Your task to perform on an android device: Open the phone app and click the voicemail tab. Image 0: 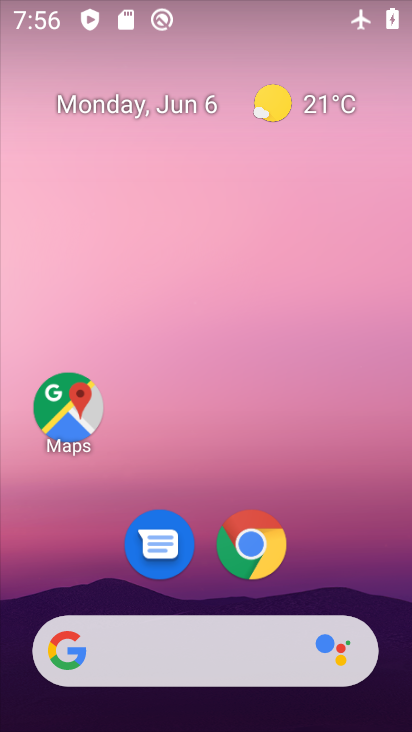
Step 0: drag from (308, 600) to (328, 343)
Your task to perform on an android device: Open the phone app and click the voicemail tab. Image 1: 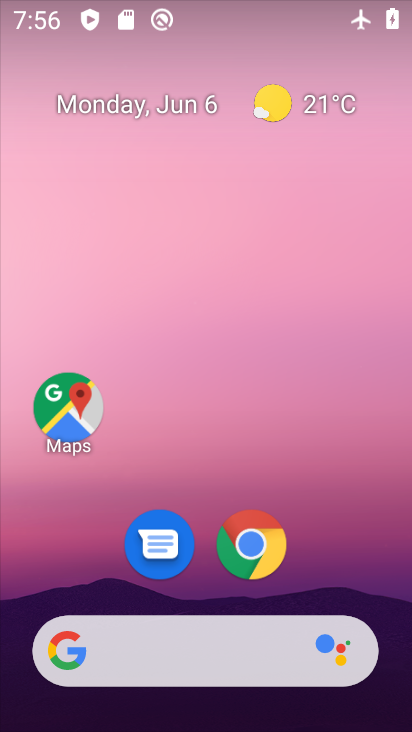
Step 1: drag from (240, 574) to (256, 287)
Your task to perform on an android device: Open the phone app and click the voicemail tab. Image 2: 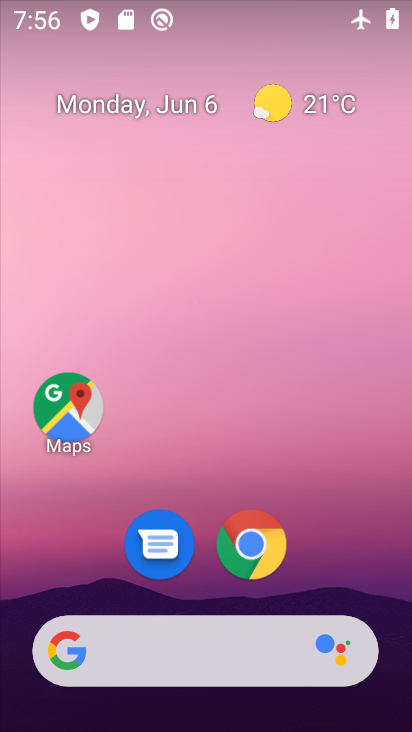
Step 2: drag from (167, 606) to (213, 234)
Your task to perform on an android device: Open the phone app and click the voicemail tab. Image 3: 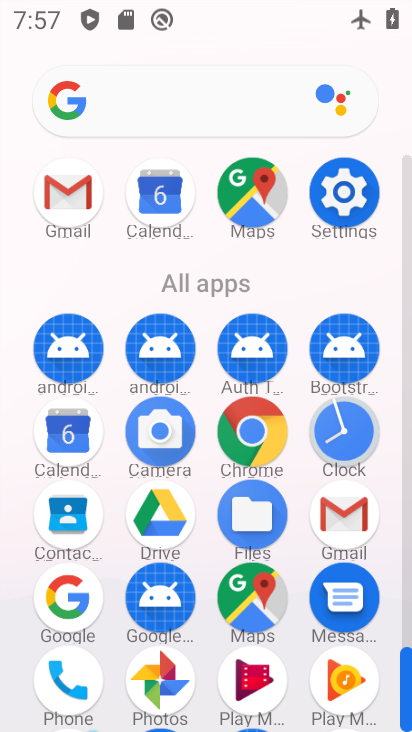
Step 3: click (77, 689)
Your task to perform on an android device: Open the phone app and click the voicemail tab. Image 4: 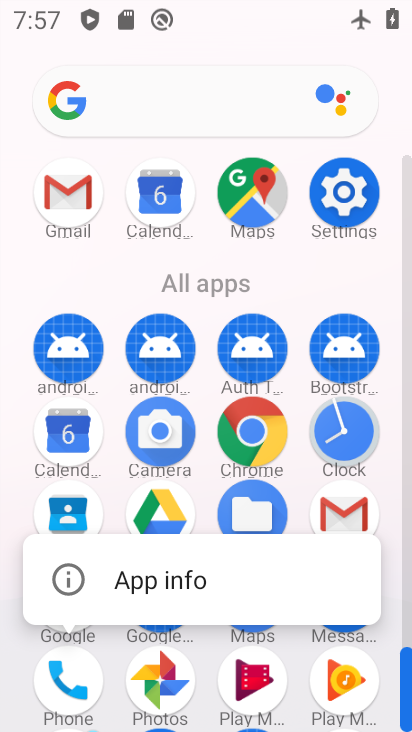
Step 4: click (58, 687)
Your task to perform on an android device: Open the phone app and click the voicemail tab. Image 5: 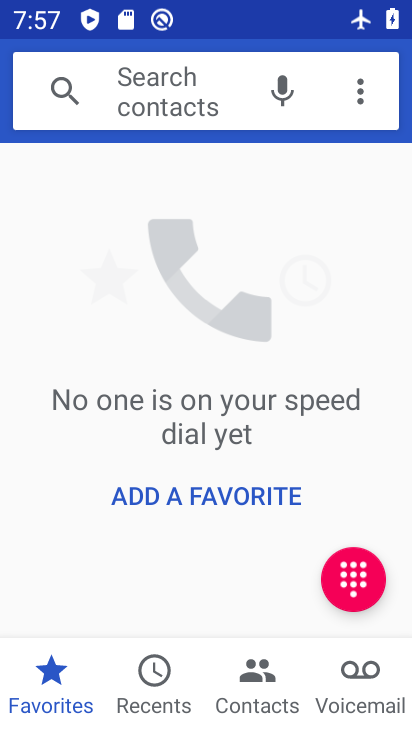
Step 5: click (344, 673)
Your task to perform on an android device: Open the phone app and click the voicemail tab. Image 6: 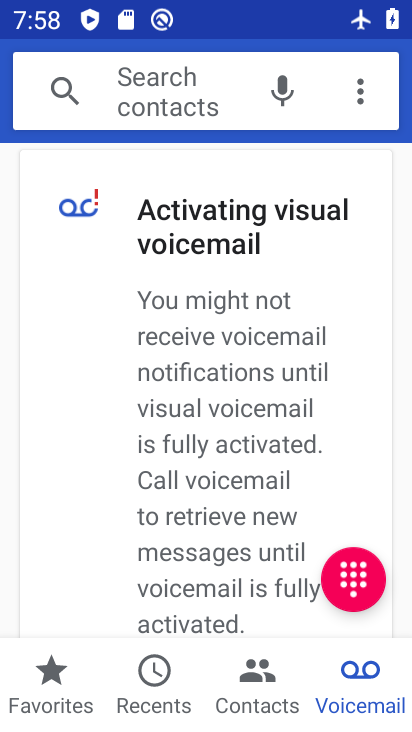
Step 6: task complete